Your task to perform on an android device: Open settings Image 0: 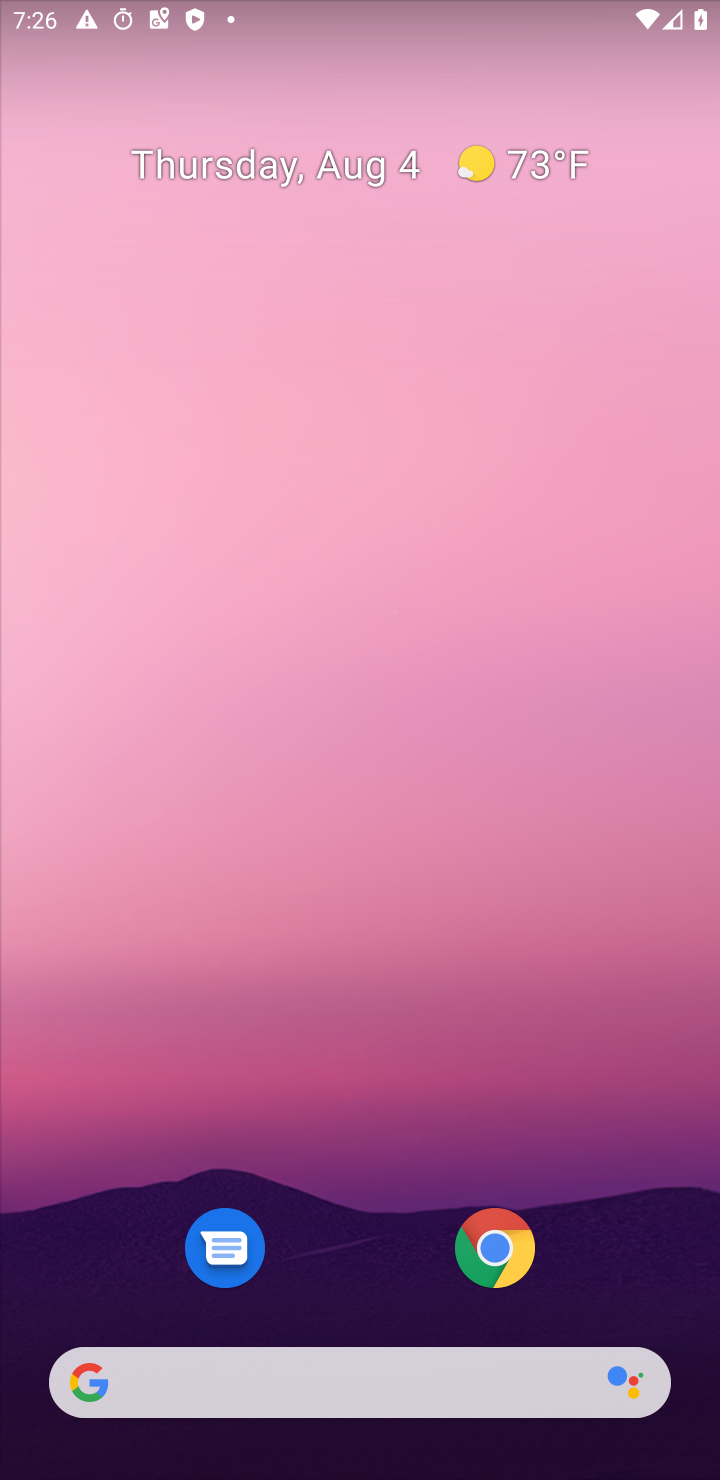
Step 0: press home button
Your task to perform on an android device: Open settings Image 1: 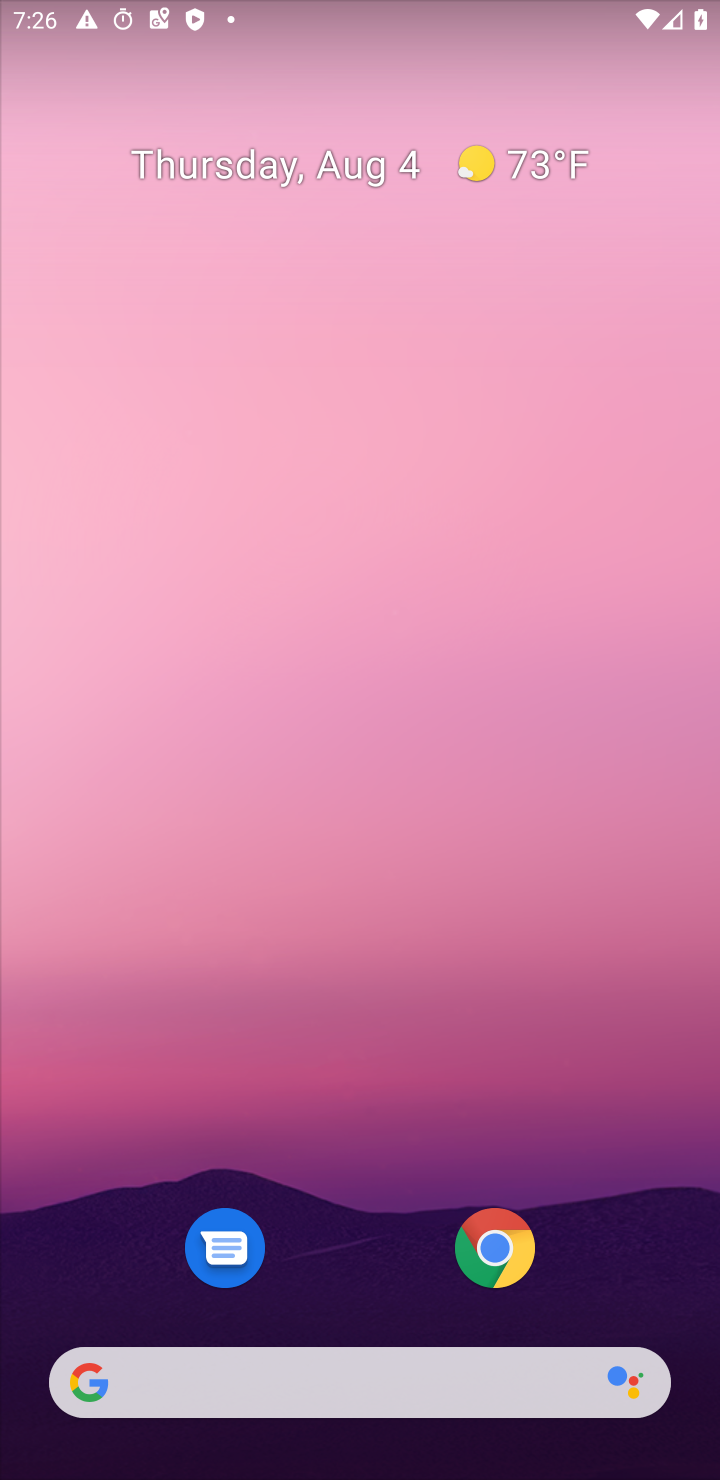
Step 1: drag from (452, 1097) to (310, 129)
Your task to perform on an android device: Open settings Image 2: 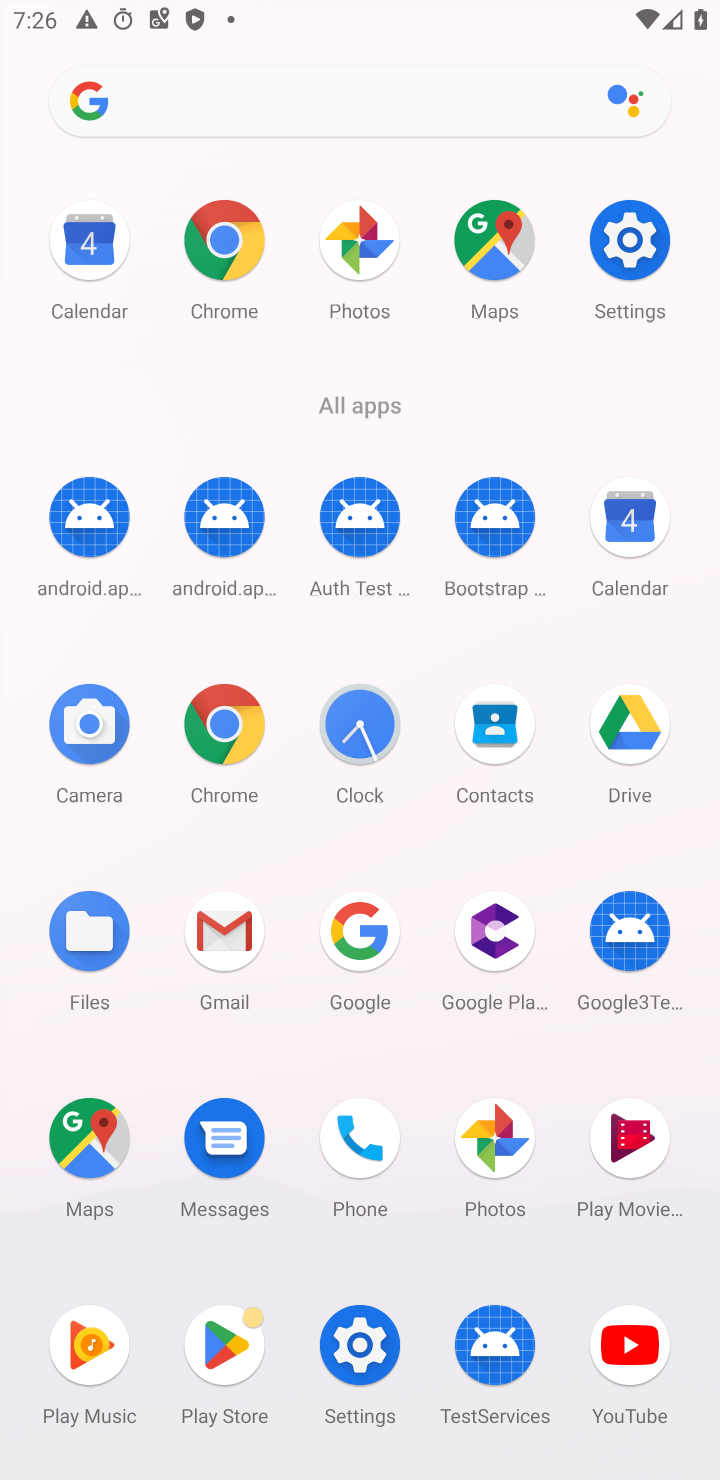
Step 2: click (652, 252)
Your task to perform on an android device: Open settings Image 3: 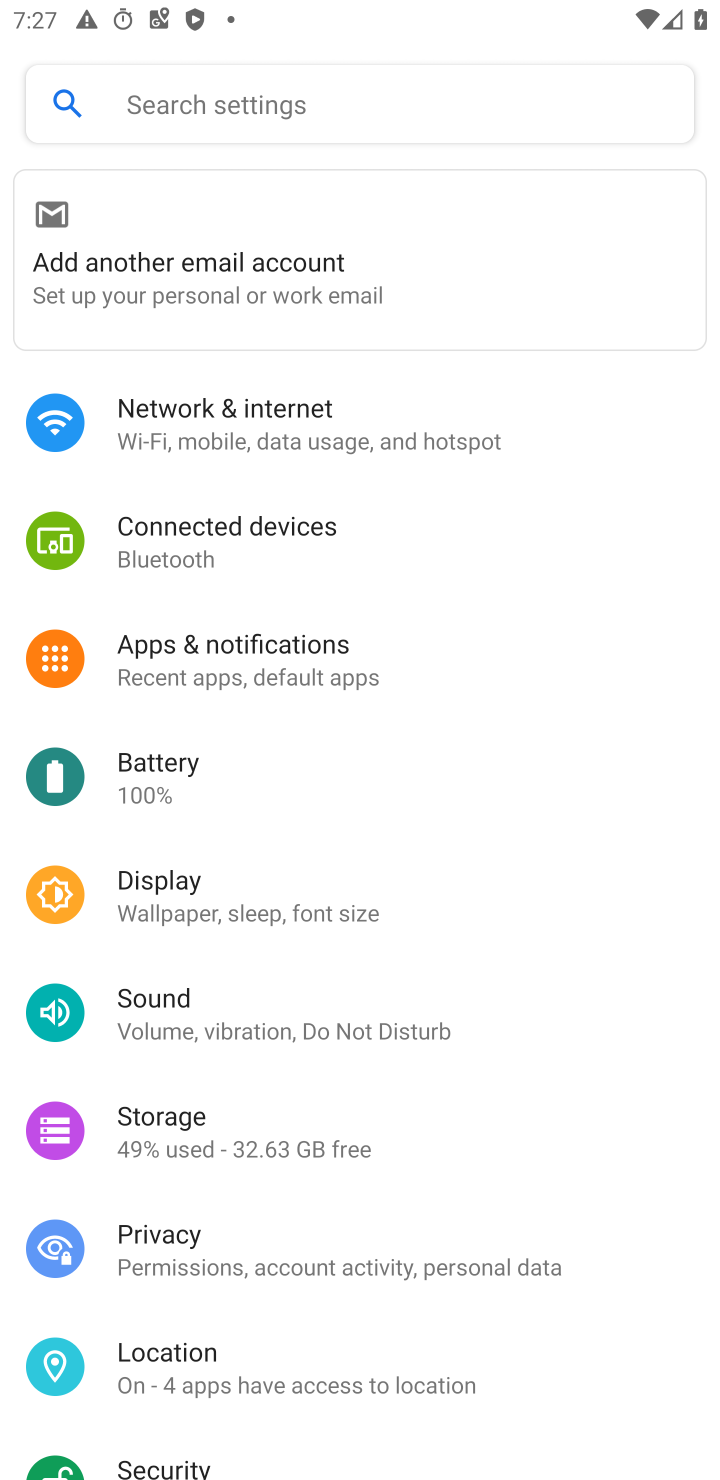
Step 3: task complete